Your task to perform on an android device: open sync settings in chrome Image 0: 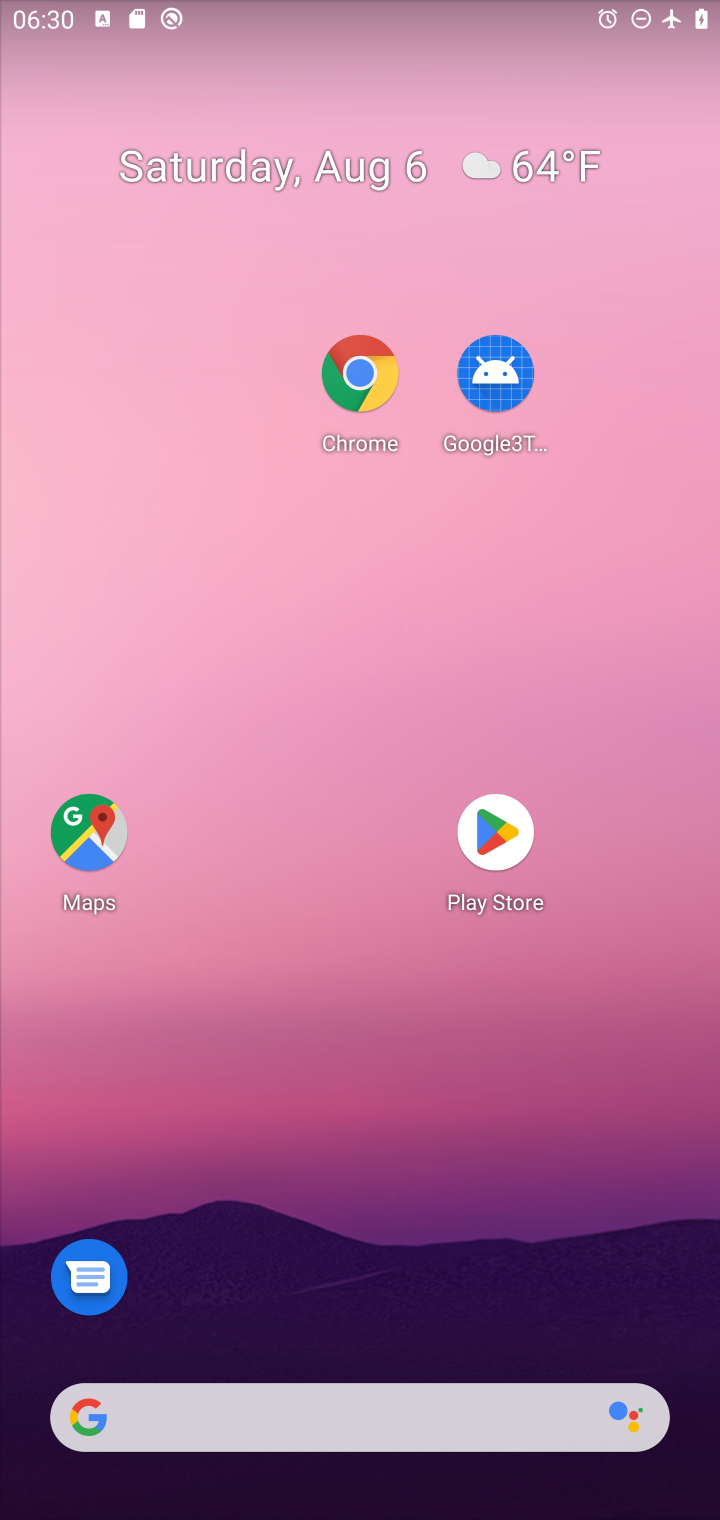
Step 0: drag from (512, 1419) to (268, 280)
Your task to perform on an android device: open sync settings in chrome Image 1: 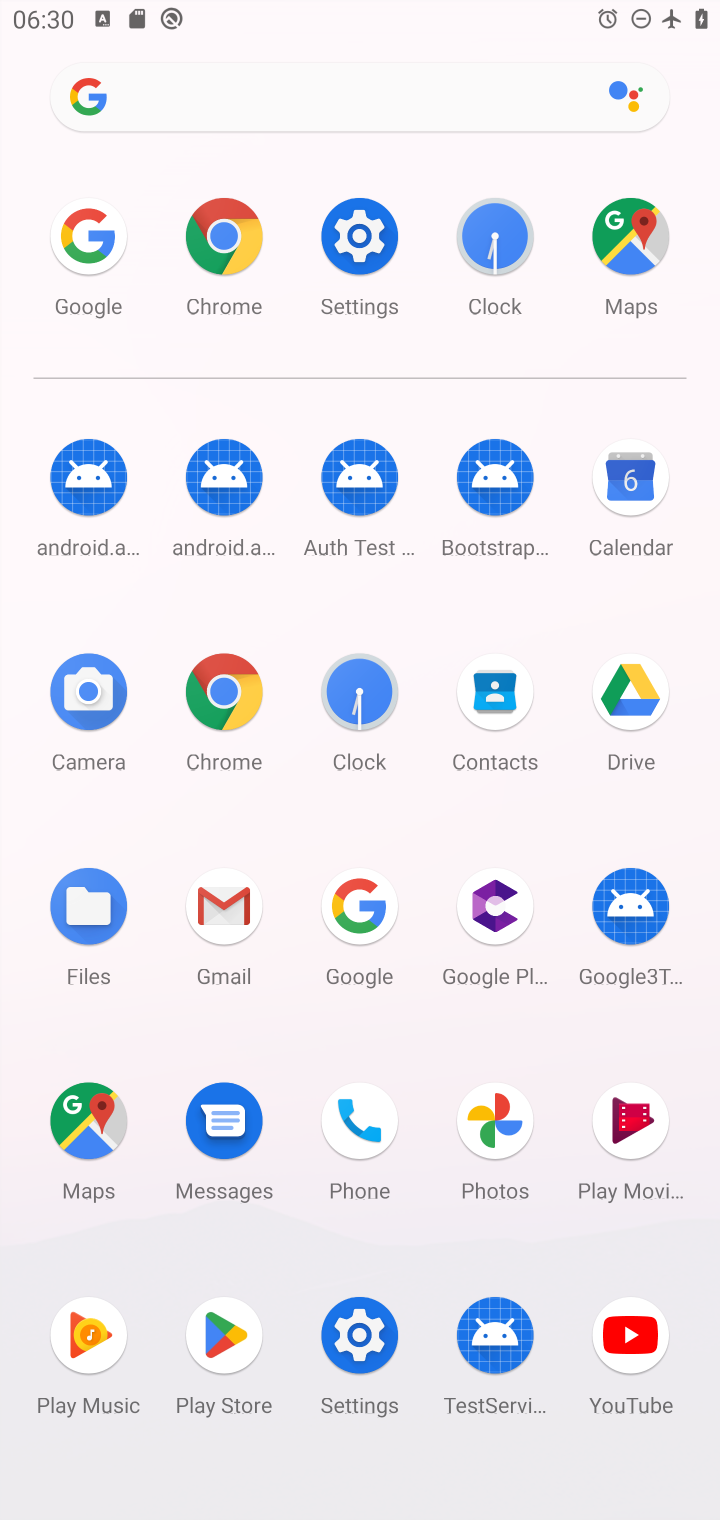
Step 1: click (233, 694)
Your task to perform on an android device: open sync settings in chrome Image 2: 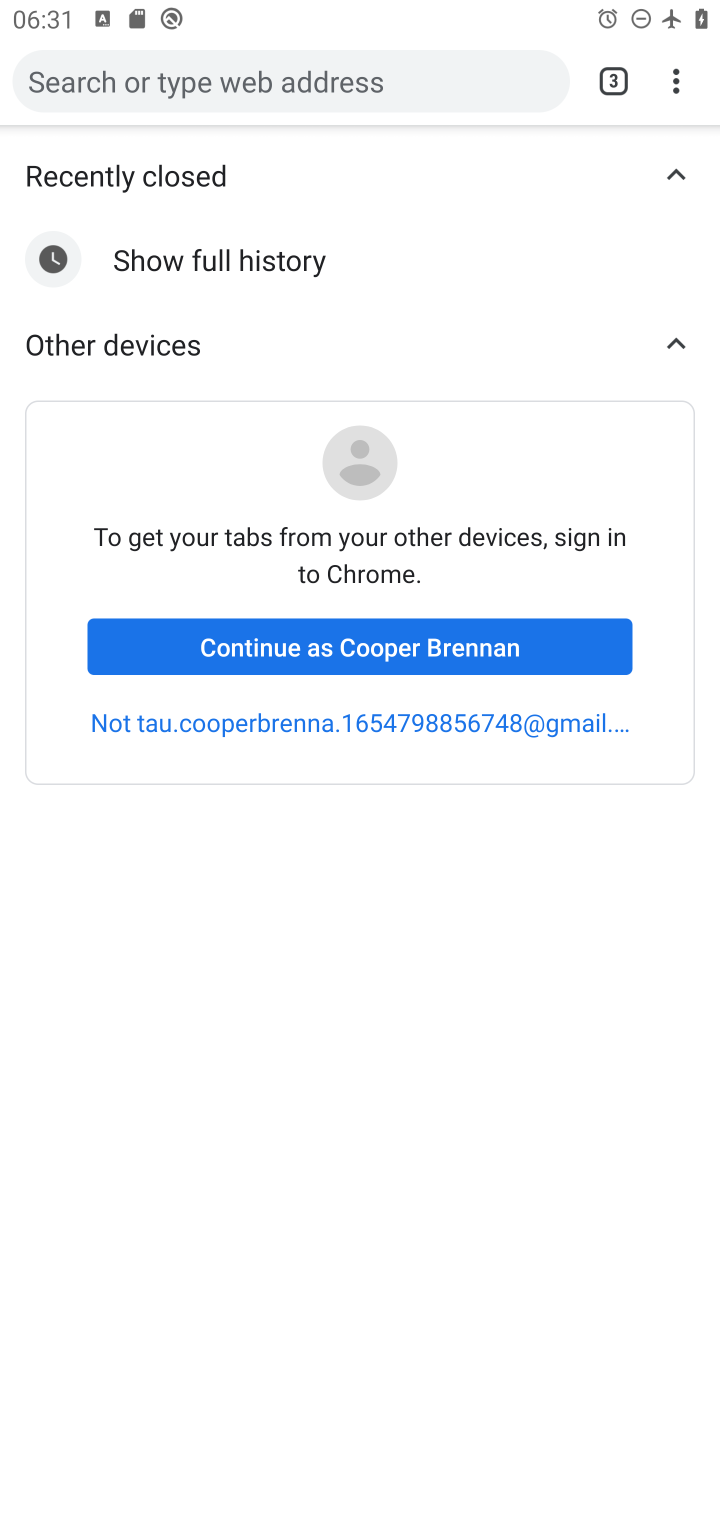
Step 2: click (658, 82)
Your task to perform on an android device: open sync settings in chrome Image 3: 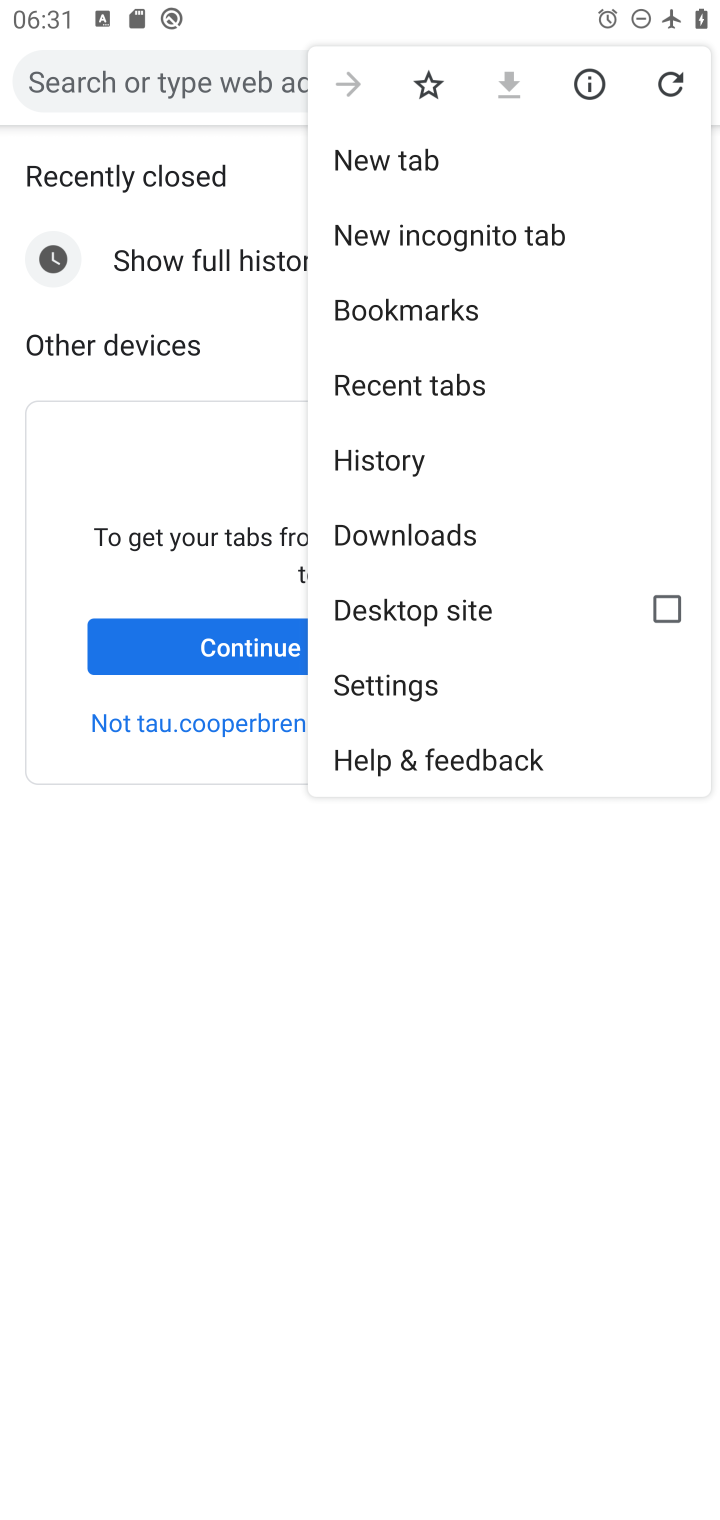
Step 3: click (379, 680)
Your task to perform on an android device: open sync settings in chrome Image 4: 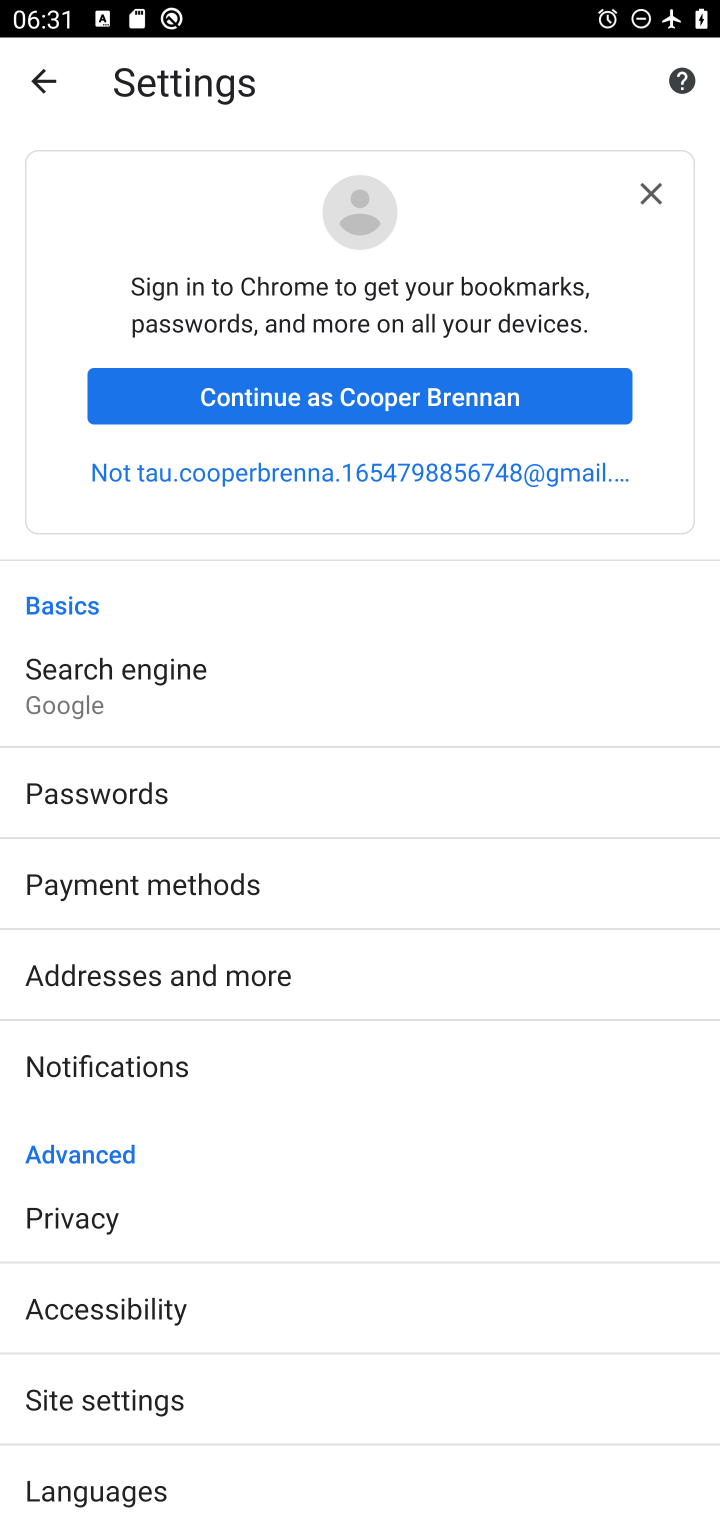
Step 4: click (194, 1380)
Your task to perform on an android device: open sync settings in chrome Image 5: 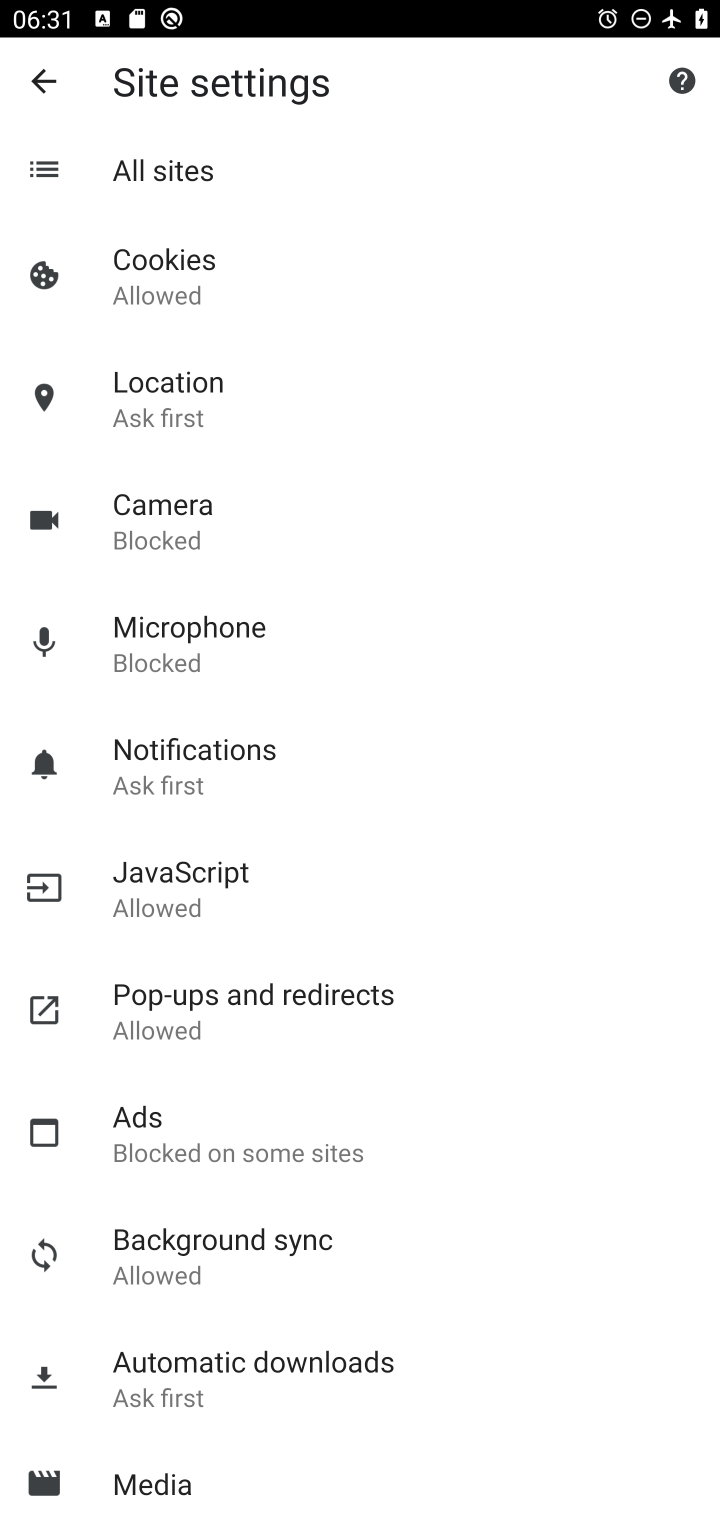
Step 5: click (269, 1222)
Your task to perform on an android device: open sync settings in chrome Image 6: 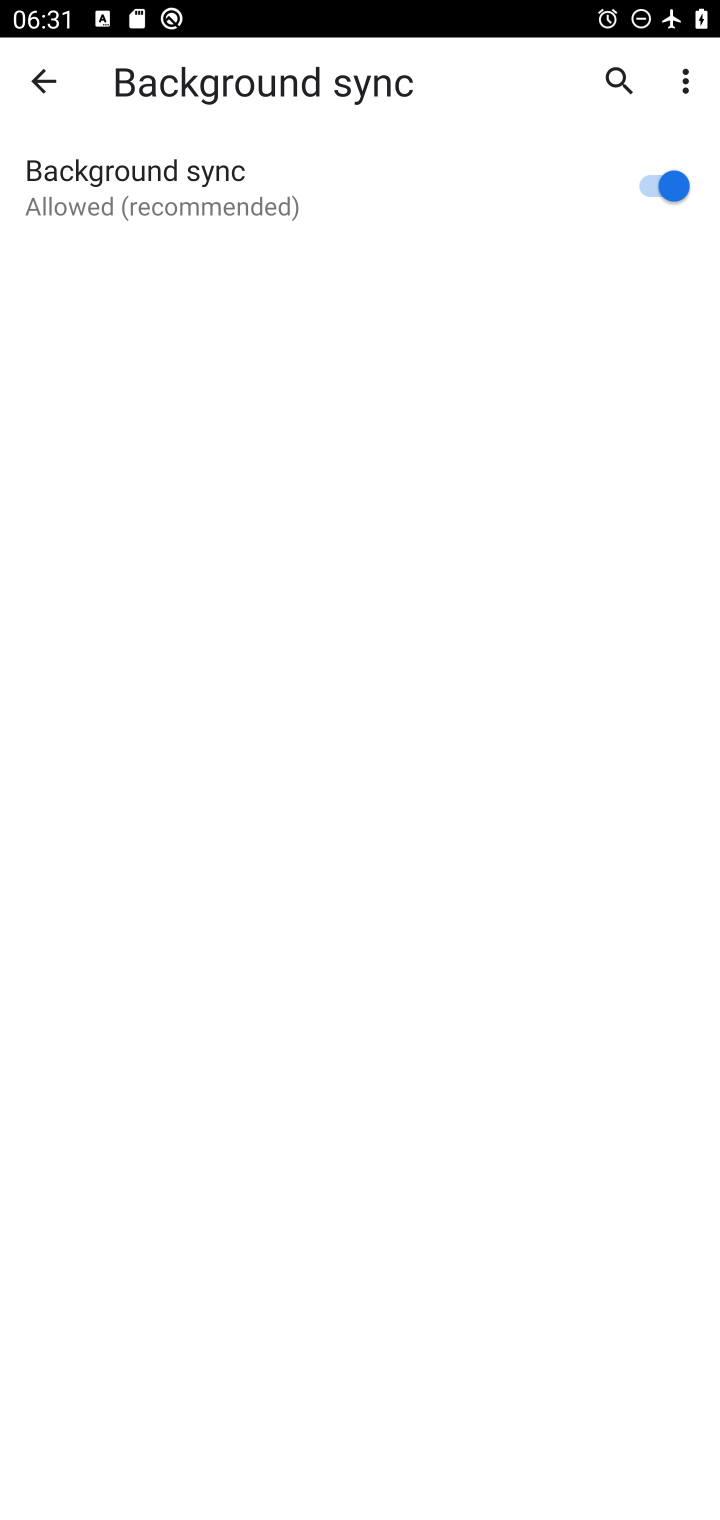
Step 6: task complete